Your task to perform on an android device: Clear the cart on walmart.com. Search for "razer blade" on walmart.com, select the first entry, add it to the cart, then select checkout. Image 0: 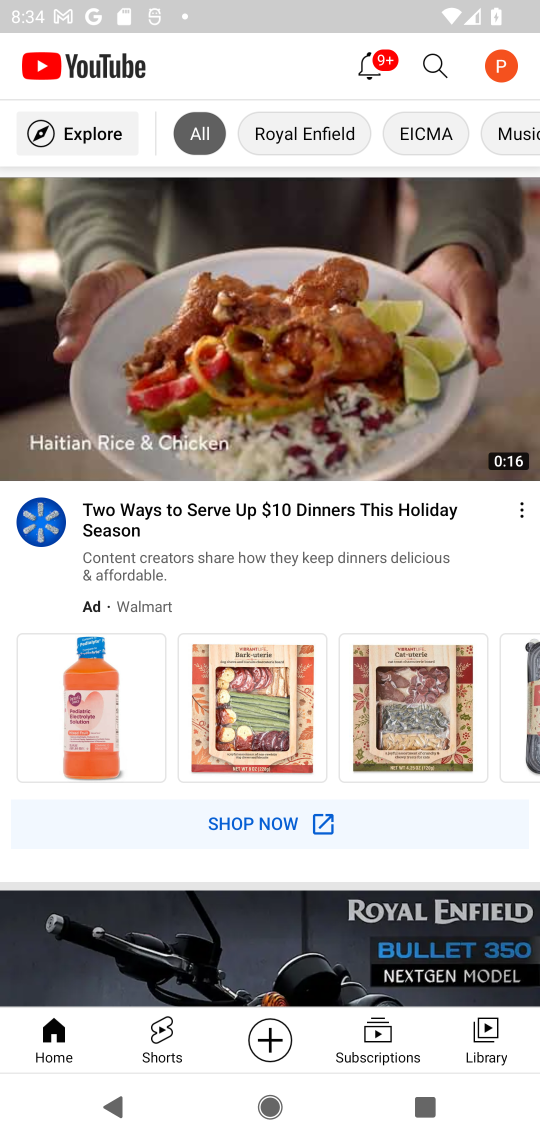
Step 0: press home button
Your task to perform on an android device: Clear the cart on walmart.com. Search for "razer blade" on walmart.com, select the first entry, add it to the cart, then select checkout. Image 1: 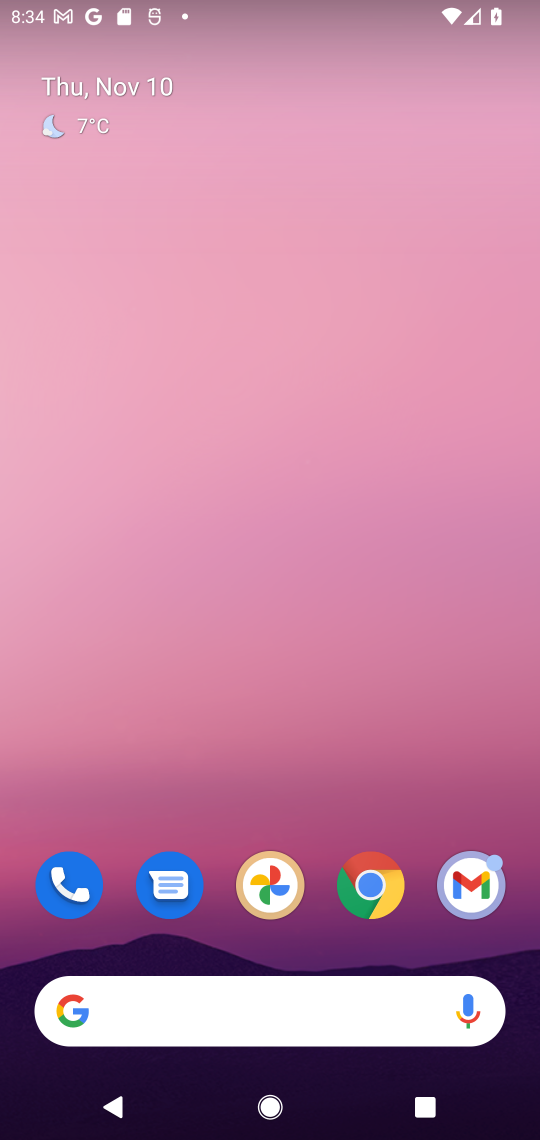
Step 1: click (369, 890)
Your task to perform on an android device: Clear the cart on walmart.com. Search for "razer blade" on walmart.com, select the first entry, add it to the cart, then select checkout. Image 2: 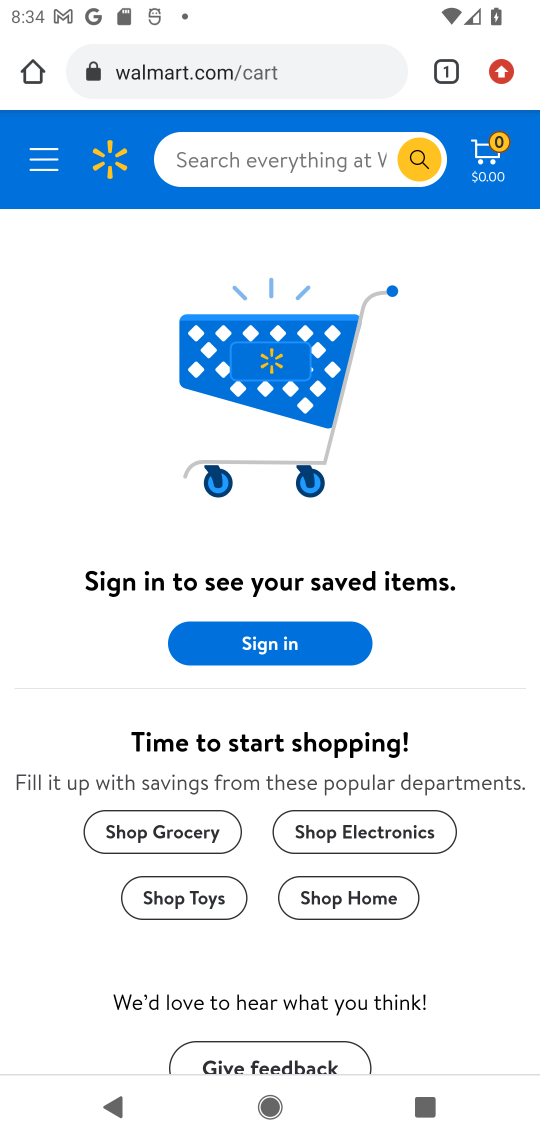
Step 2: click (322, 162)
Your task to perform on an android device: Clear the cart on walmart.com. Search for "razer blade" on walmart.com, select the first entry, add it to the cart, then select checkout. Image 3: 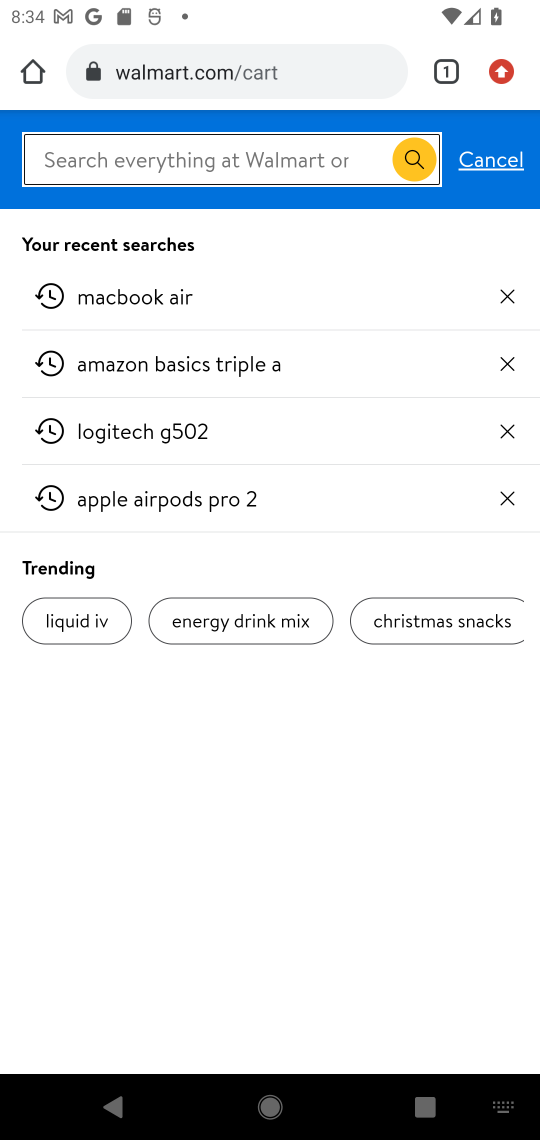
Step 3: type "razer blade"
Your task to perform on an android device: Clear the cart on walmart.com. Search for "razer blade" on walmart.com, select the first entry, add it to the cart, then select checkout. Image 4: 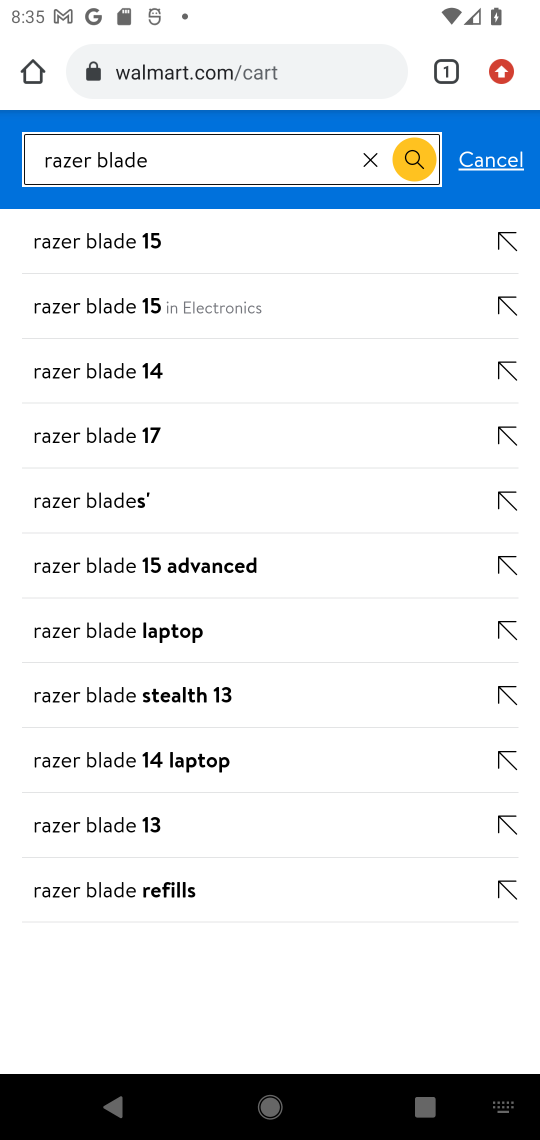
Step 4: click (115, 487)
Your task to perform on an android device: Clear the cart on walmart.com. Search for "razer blade" on walmart.com, select the first entry, add it to the cart, then select checkout. Image 5: 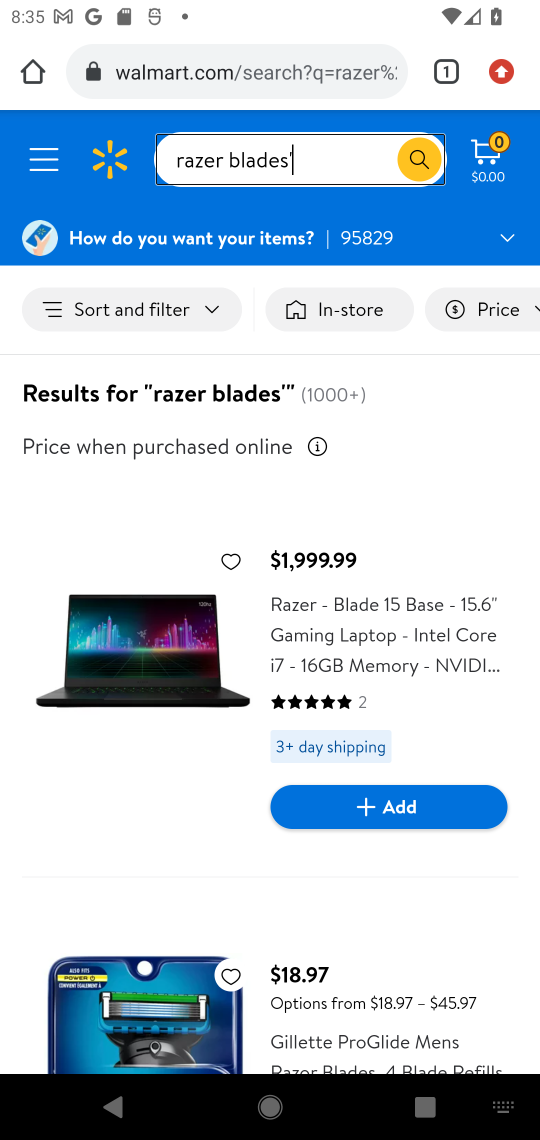
Step 5: click (141, 658)
Your task to perform on an android device: Clear the cart on walmart.com. Search for "razer blade" on walmart.com, select the first entry, add it to the cart, then select checkout. Image 6: 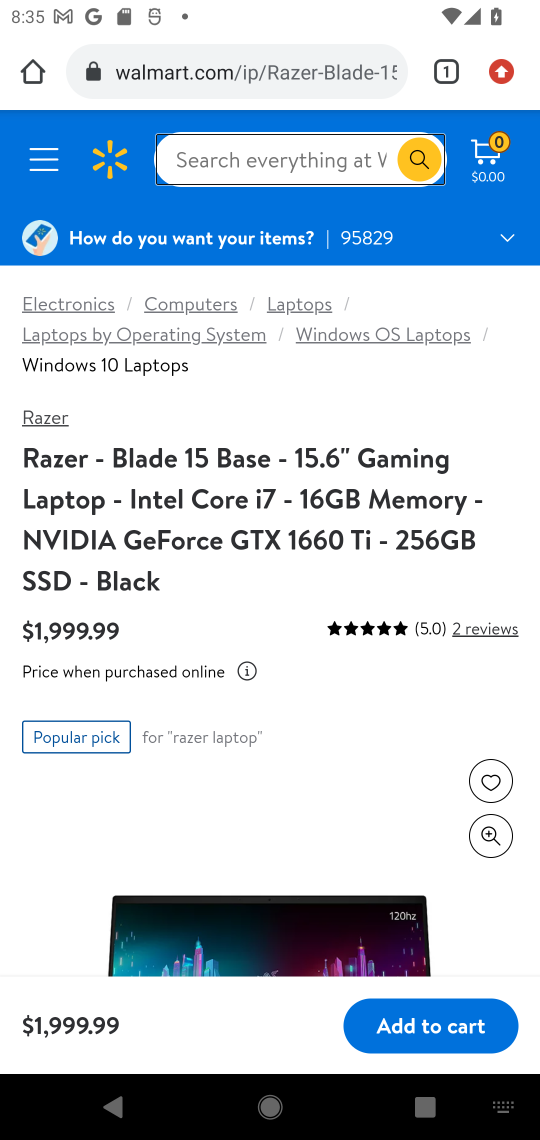
Step 6: drag from (372, 780) to (340, 450)
Your task to perform on an android device: Clear the cart on walmart.com. Search for "razer blade" on walmart.com, select the first entry, add it to the cart, then select checkout. Image 7: 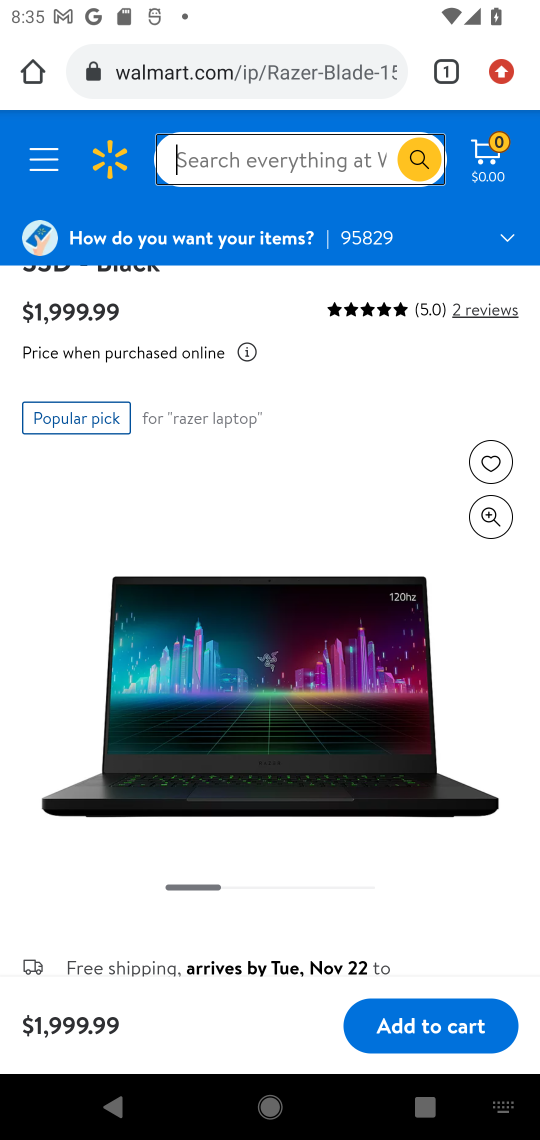
Step 7: click (413, 1022)
Your task to perform on an android device: Clear the cart on walmart.com. Search for "razer blade" on walmart.com, select the first entry, add it to the cart, then select checkout. Image 8: 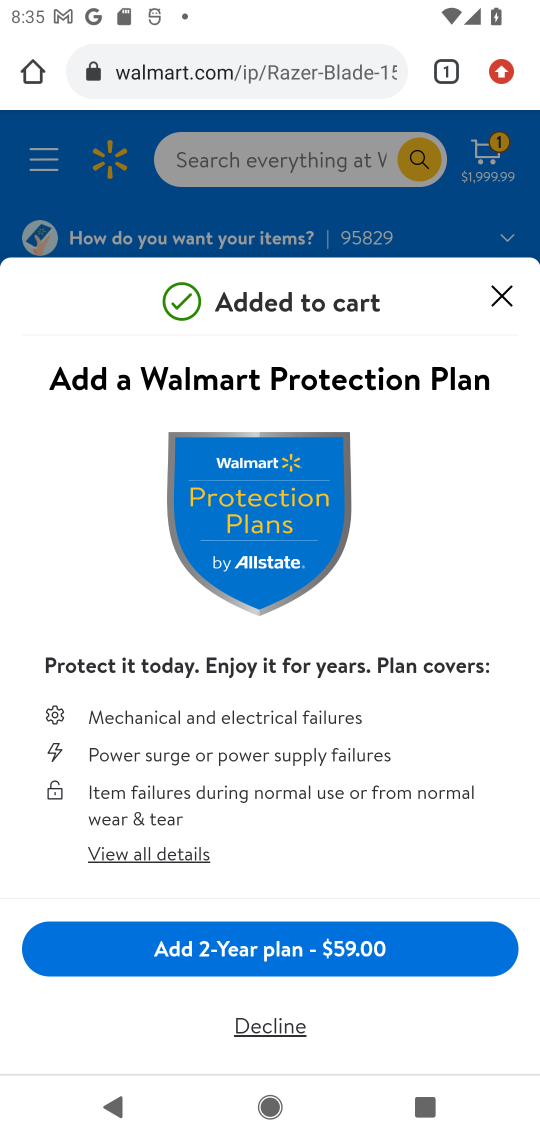
Step 8: click (500, 289)
Your task to perform on an android device: Clear the cart on walmart.com. Search for "razer blade" on walmart.com, select the first entry, add it to the cart, then select checkout. Image 9: 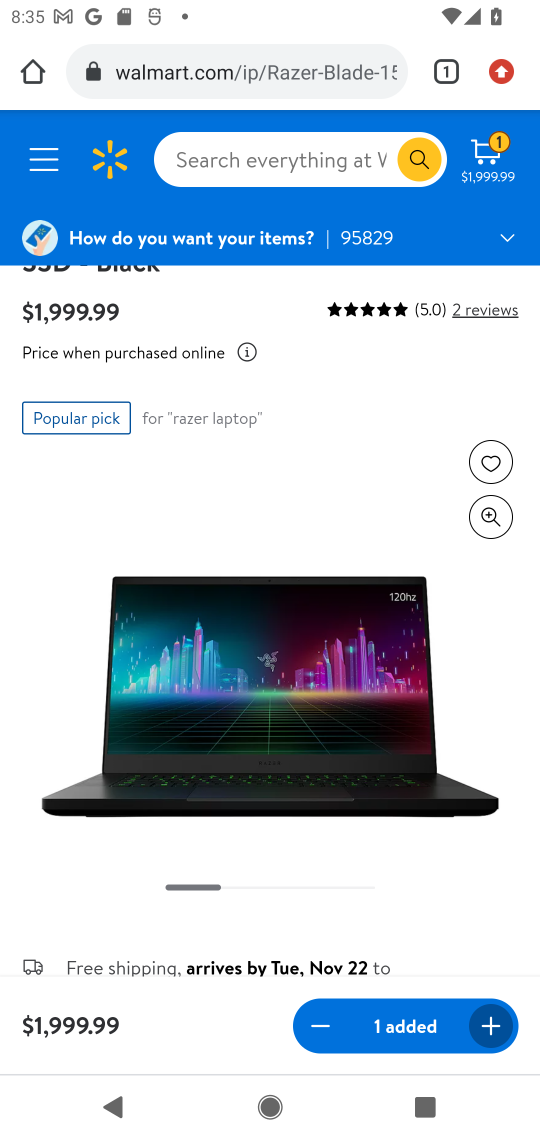
Step 9: click (482, 162)
Your task to perform on an android device: Clear the cart on walmart.com. Search for "razer blade" on walmart.com, select the first entry, add it to the cart, then select checkout. Image 10: 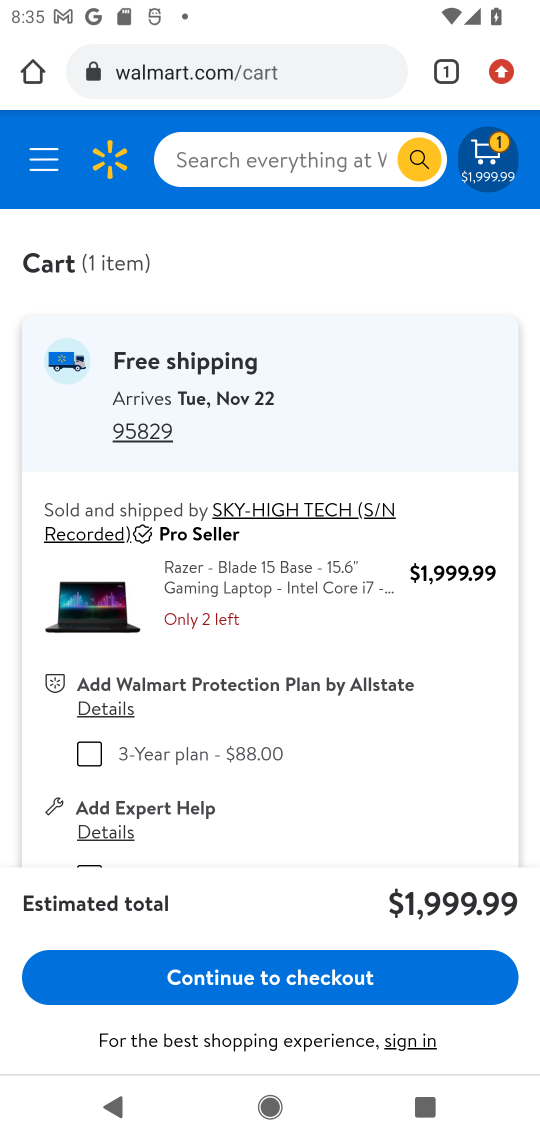
Step 10: click (320, 973)
Your task to perform on an android device: Clear the cart on walmart.com. Search for "razer blade" on walmart.com, select the first entry, add it to the cart, then select checkout. Image 11: 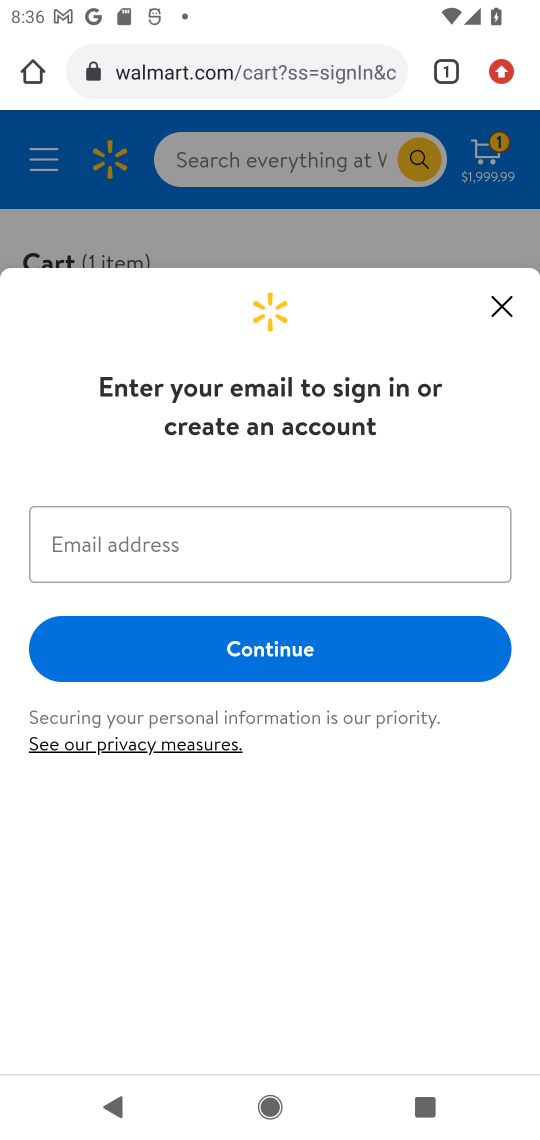
Step 11: click (501, 315)
Your task to perform on an android device: Clear the cart on walmart.com. Search for "razer blade" on walmart.com, select the first entry, add it to the cart, then select checkout. Image 12: 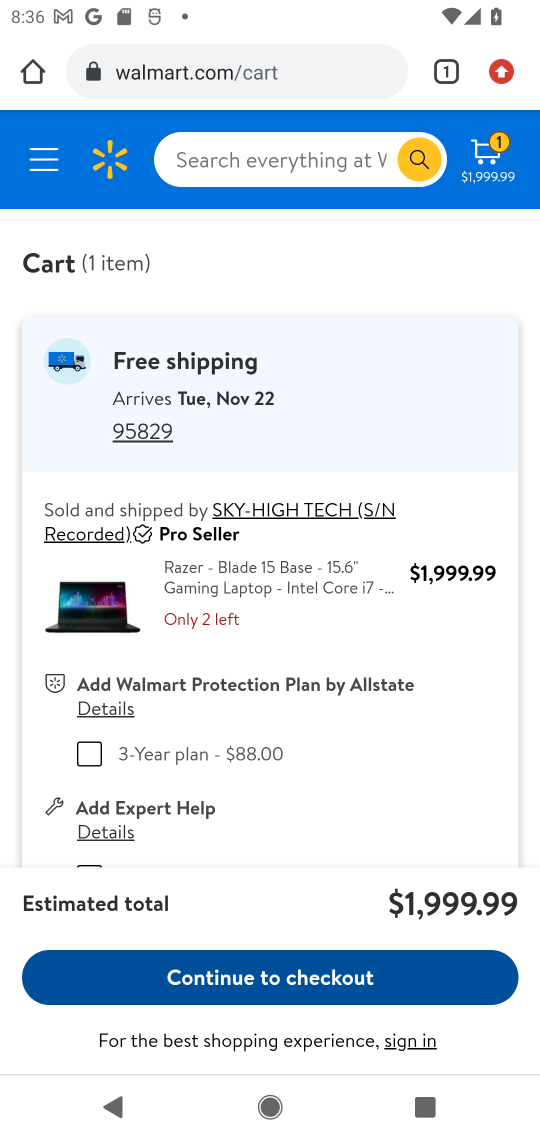
Step 12: task complete